Your task to perform on an android device: add a contact in the contacts app Image 0: 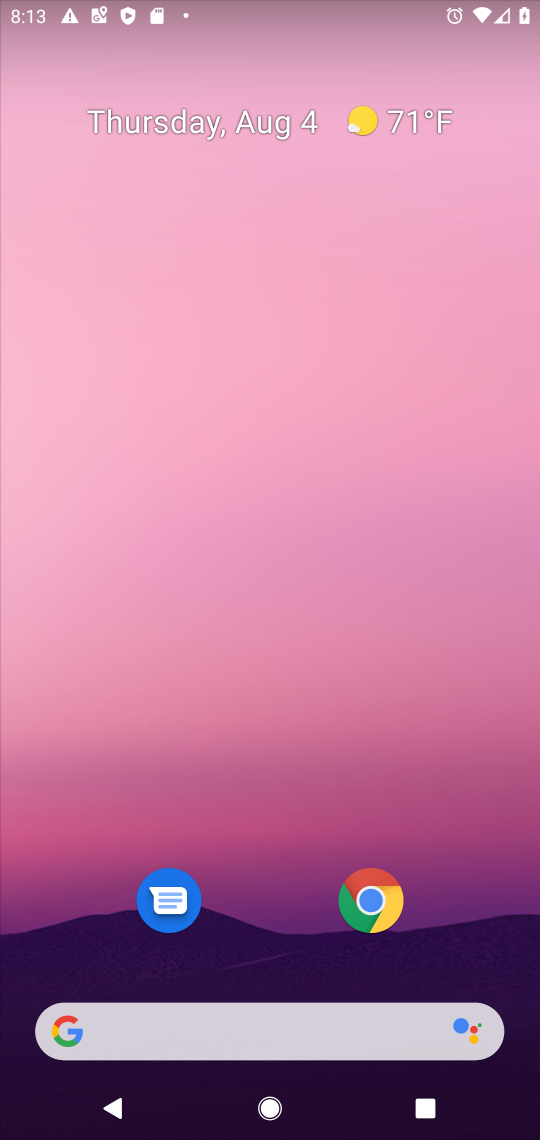
Step 0: drag from (294, 996) to (315, 317)
Your task to perform on an android device: add a contact in the contacts app Image 1: 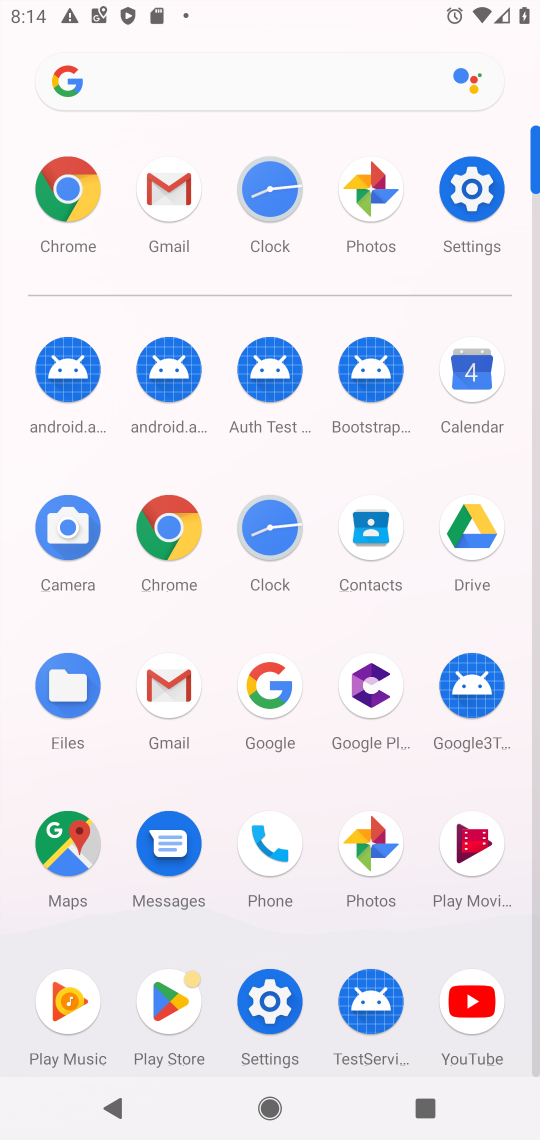
Step 1: click (366, 529)
Your task to perform on an android device: add a contact in the contacts app Image 2: 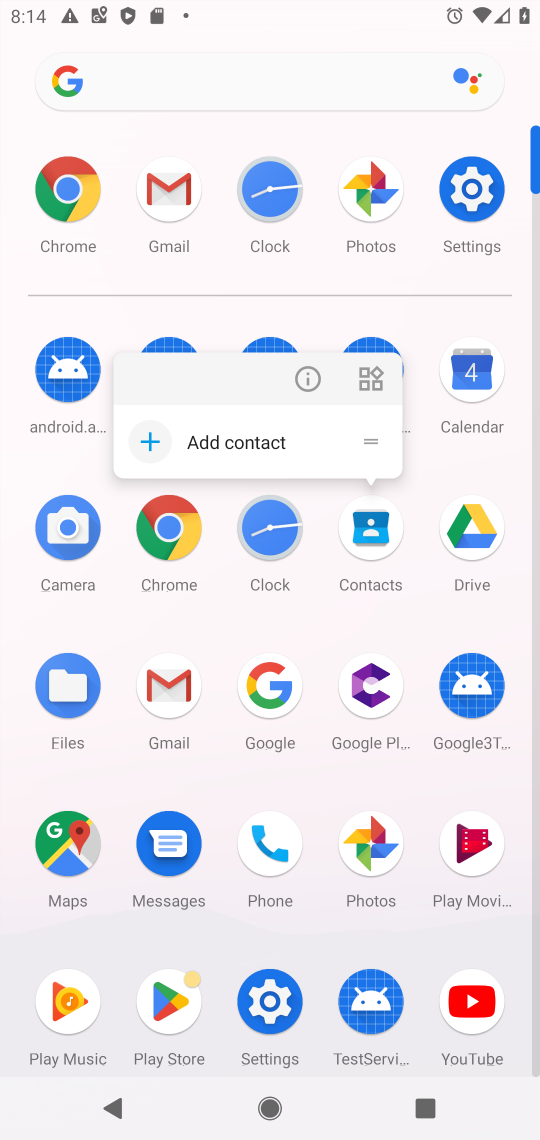
Step 2: click (366, 529)
Your task to perform on an android device: add a contact in the contacts app Image 3: 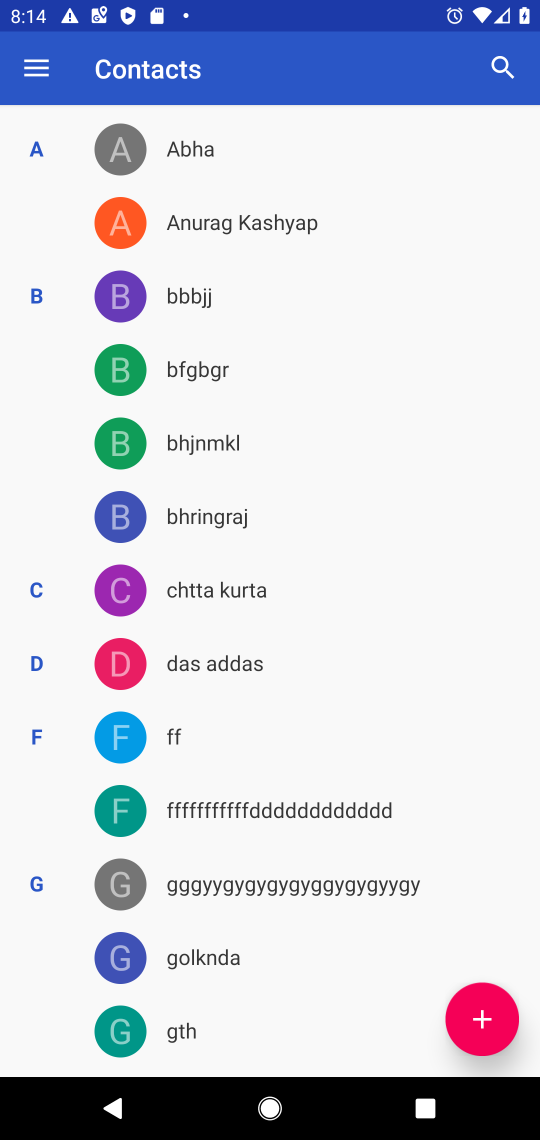
Step 3: click (481, 1017)
Your task to perform on an android device: add a contact in the contacts app Image 4: 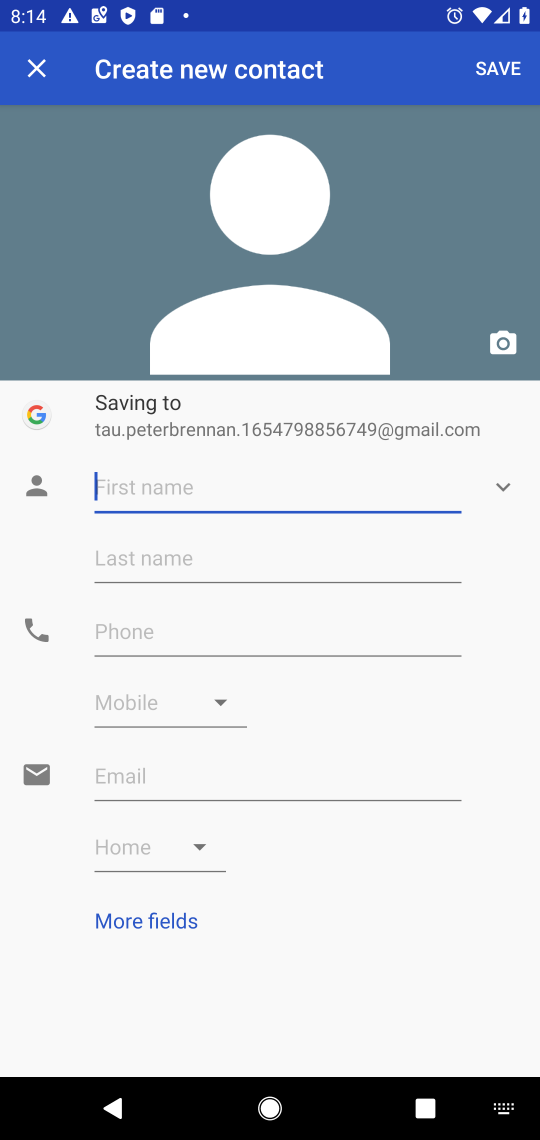
Step 4: type "Madhvi "
Your task to perform on an android device: add a contact in the contacts app Image 5: 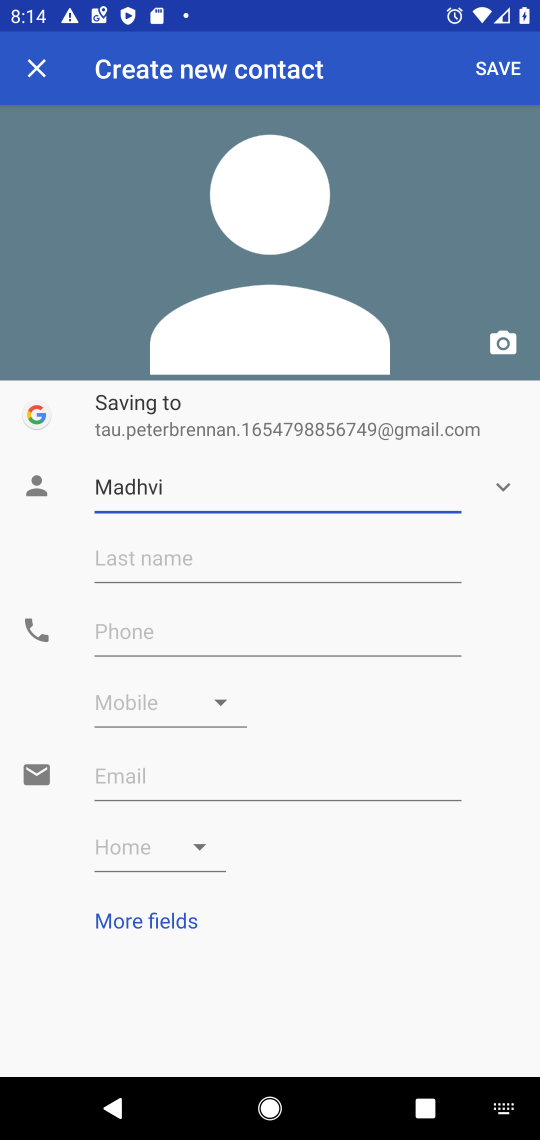
Step 5: click (138, 569)
Your task to perform on an android device: add a contact in the contacts app Image 6: 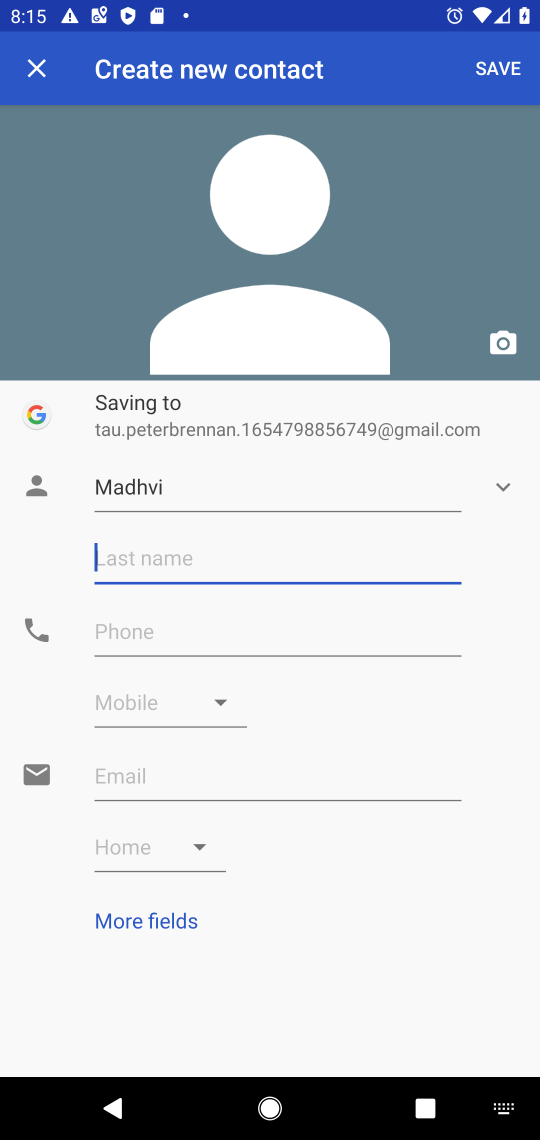
Step 6: type "Agrawal"
Your task to perform on an android device: add a contact in the contacts app Image 7: 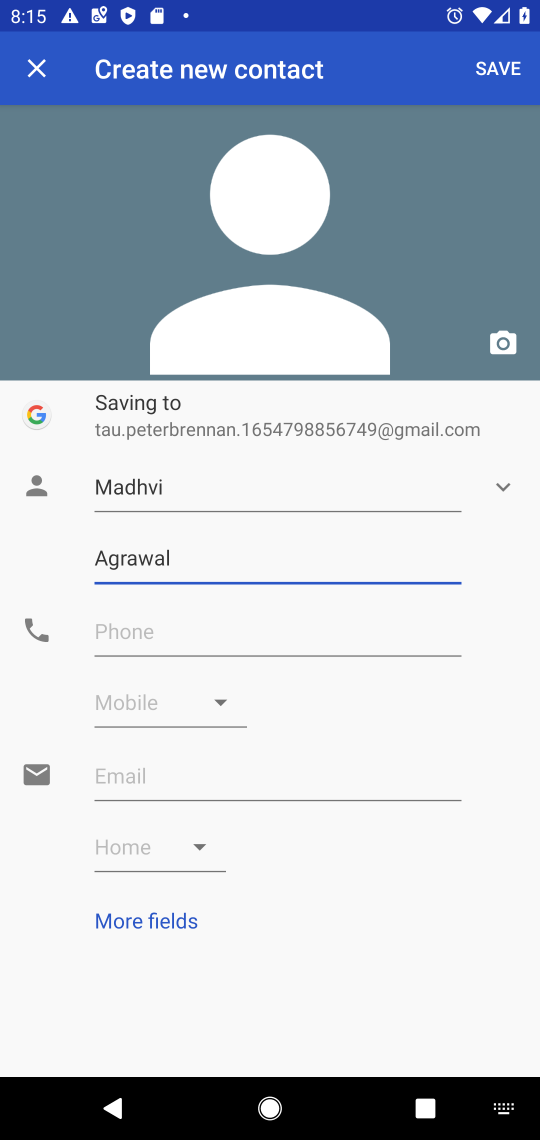
Step 7: click (242, 640)
Your task to perform on an android device: add a contact in the contacts app Image 8: 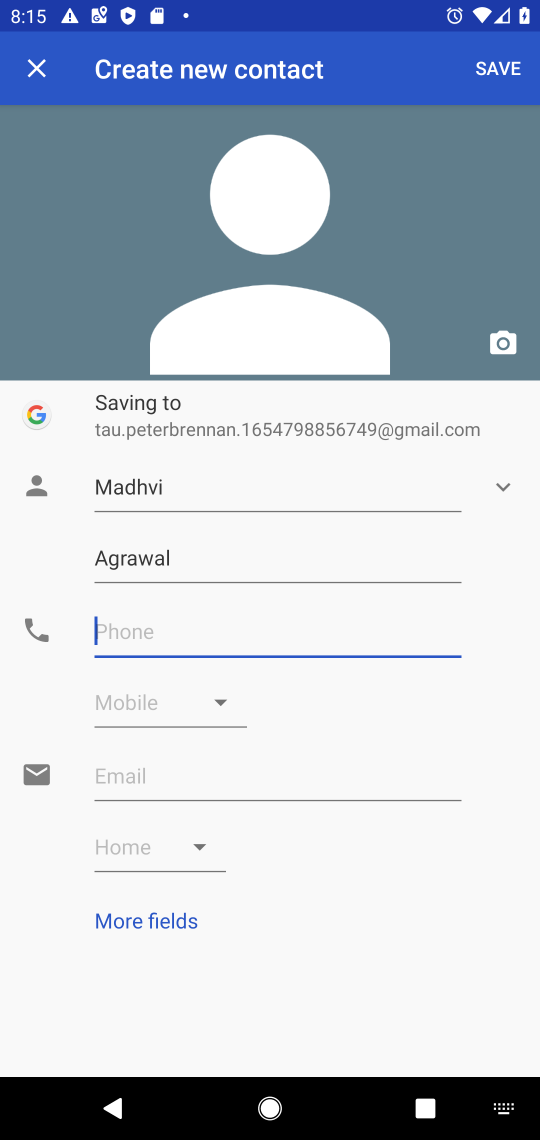
Step 8: type "099887753125"
Your task to perform on an android device: add a contact in the contacts app Image 9: 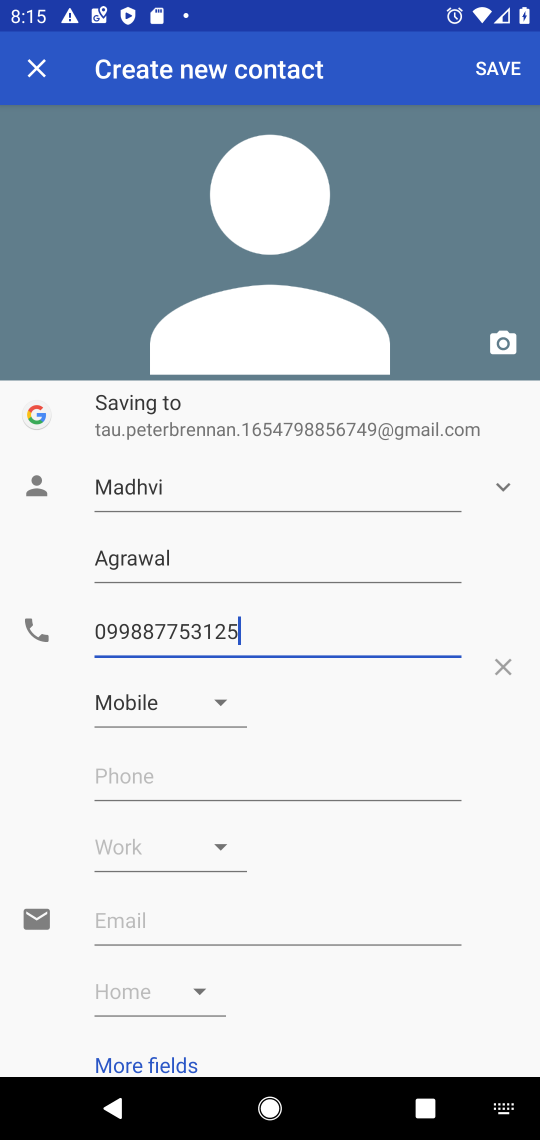
Step 9: click (496, 68)
Your task to perform on an android device: add a contact in the contacts app Image 10: 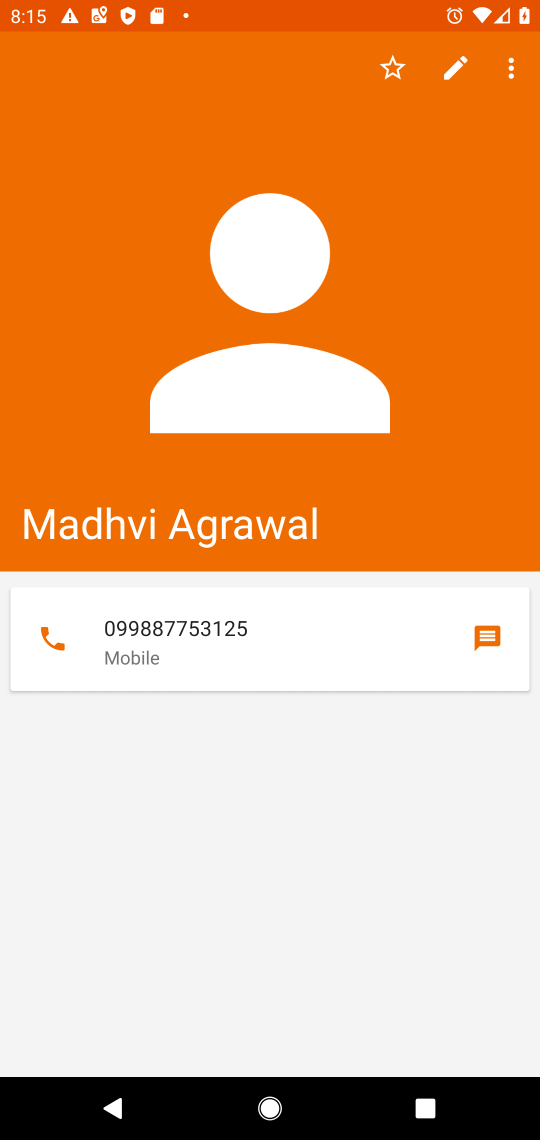
Step 10: task complete